Your task to perform on an android device: clear all cookies in the chrome app Image 0: 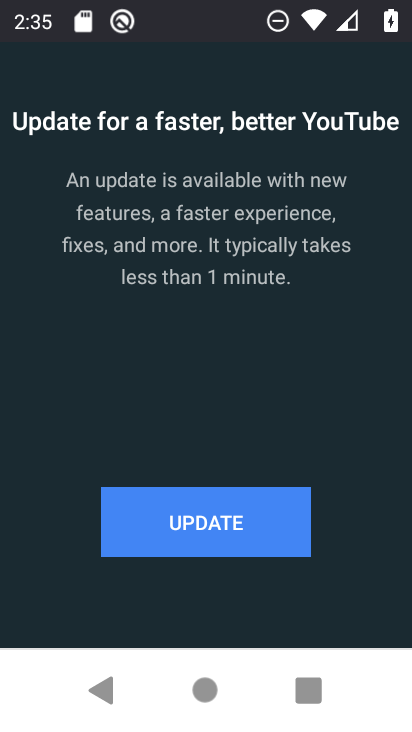
Step 0: press back button
Your task to perform on an android device: clear all cookies in the chrome app Image 1: 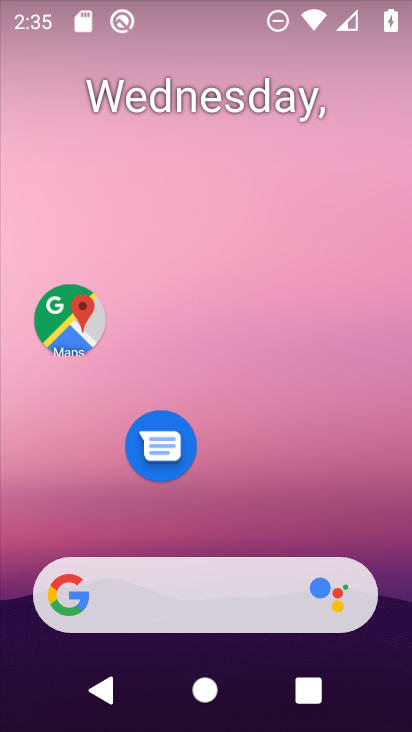
Step 1: press home button
Your task to perform on an android device: clear all cookies in the chrome app Image 2: 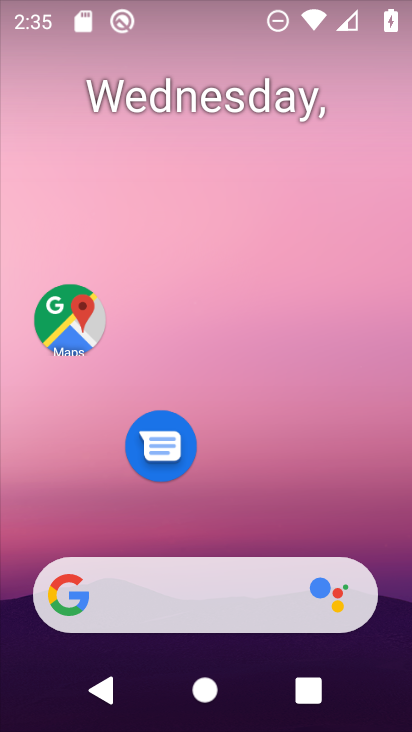
Step 2: drag from (366, 475) to (337, 91)
Your task to perform on an android device: clear all cookies in the chrome app Image 3: 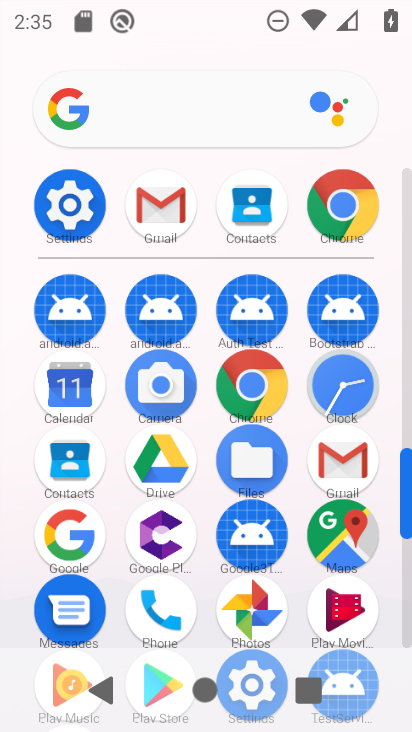
Step 3: click (350, 223)
Your task to perform on an android device: clear all cookies in the chrome app Image 4: 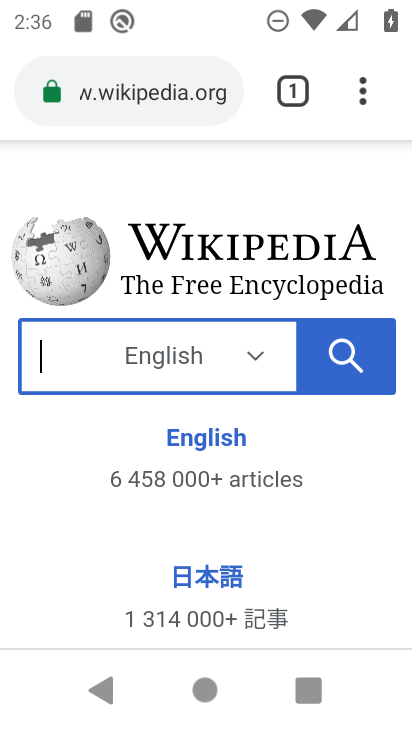
Step 4: click (349, 91)
Your task to perform on an android device: clear all cookies in the chrome app Image 5: 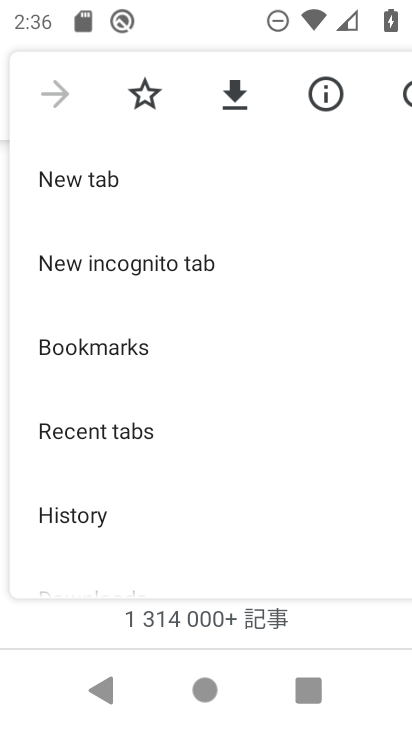
Step 5: drag from (204, 503) to (174, 127)
Your task to perform on an android device: clear all cookies in the chrome app Image 6: 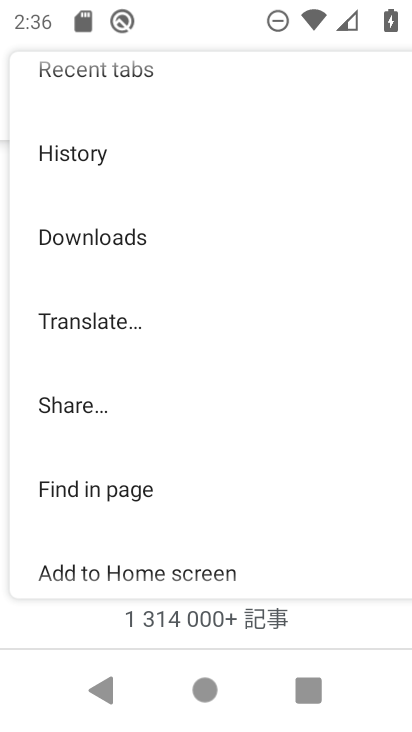
Step 6: click (118, 137)
Your task to perform on an android device: clear all cookies in the chrome app Image 7: 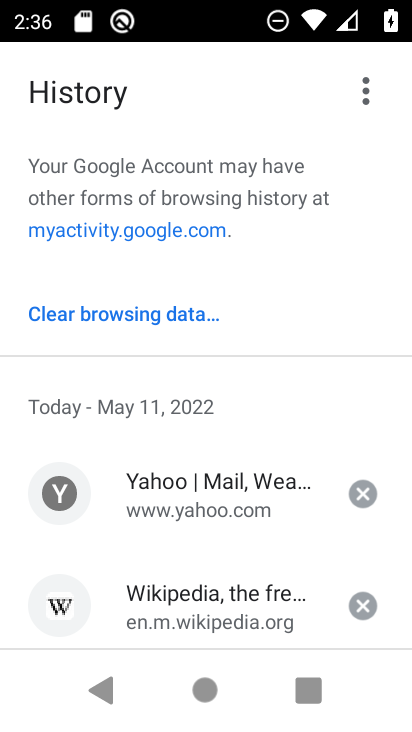
Step 7: click (98, 299)
Your task to perform on an android device: clear all cookies in the chrome app Image 8: 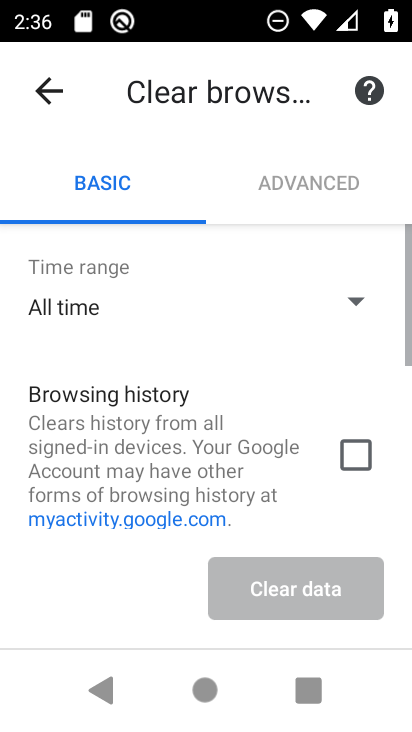
Step 8: drag from (209, 462) to (173, 239)
Your task to perform on an android device: clear all cookies in the chrome app Image 9: 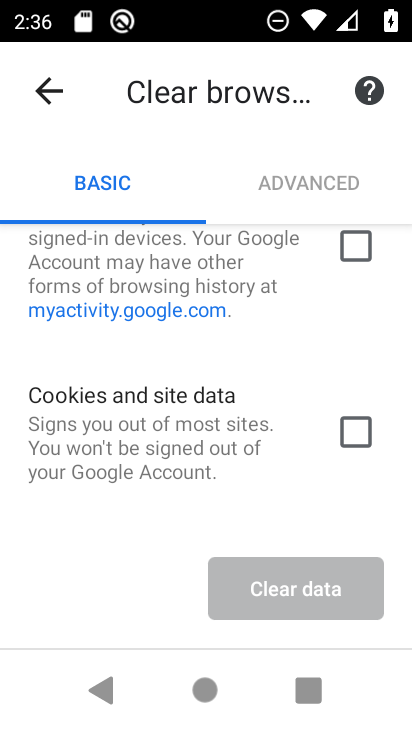
Step 9: click (182, 416)
Your task to perform on an android device: clear all cookies in the chrome app Image 10: 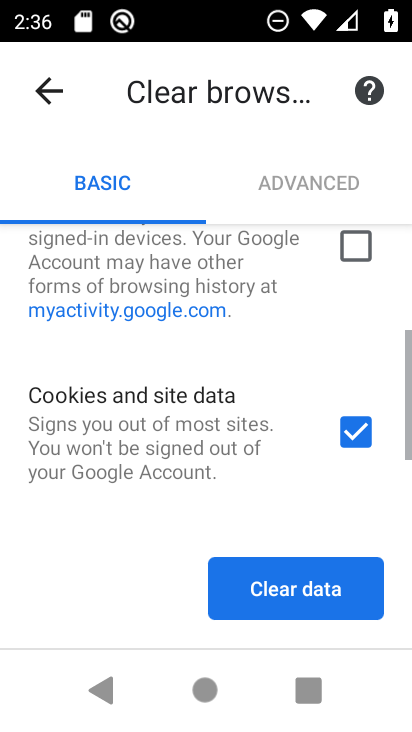
Step 10: click (286, 570)
Your task to perform on an android device: clear all cookies in the chrome app Image 11: 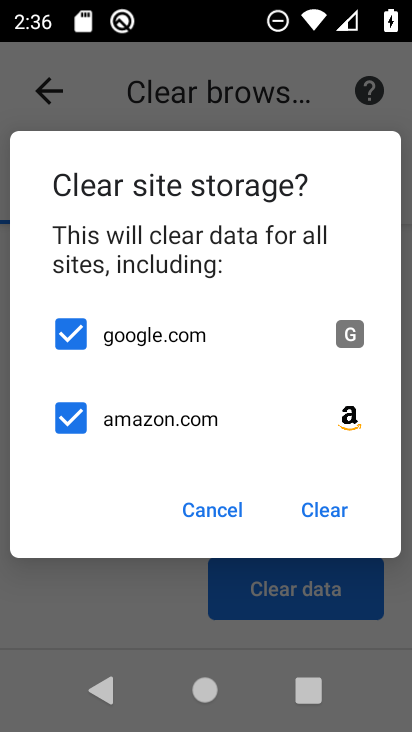
Step 11: click (304, 485)
Your task to perform on an android device: clear all cookies in the chrome app Image 12: 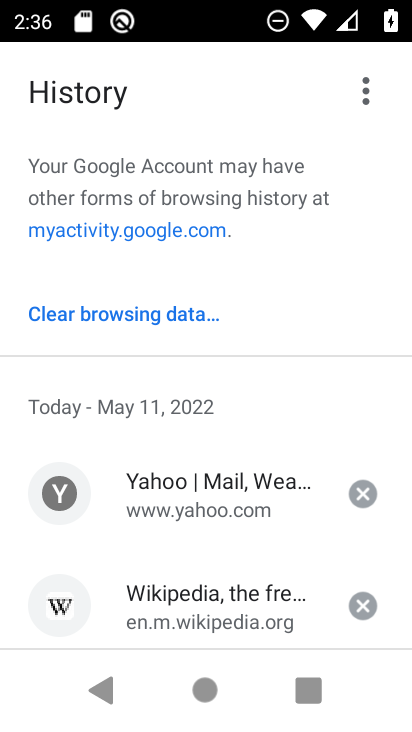
Step 12: task complete